Your task to perform on an android device: Open eBay Image 0: 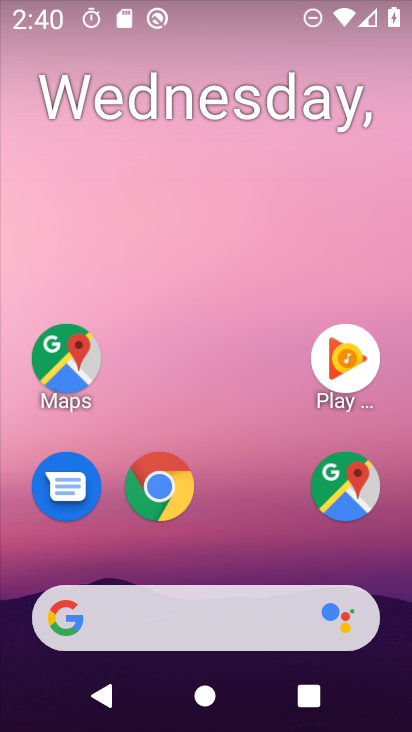
Step 0: press home button
Your task to perform on an android device: Open eBay Image 1: 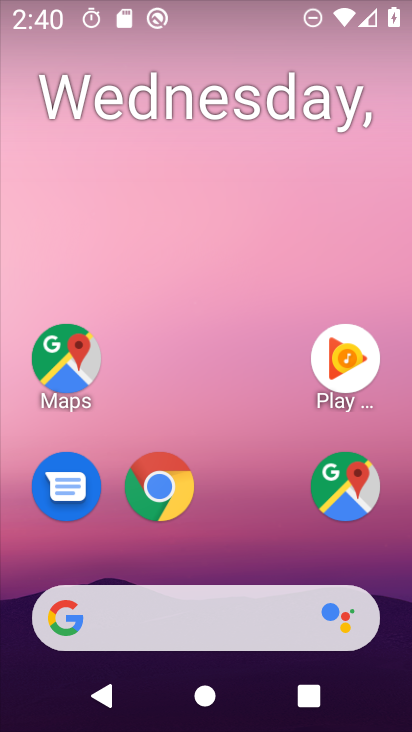
Step 1: drag from (266, 536) to (275, 151)
Your task to perform on an android device: Open eBay Image 2: 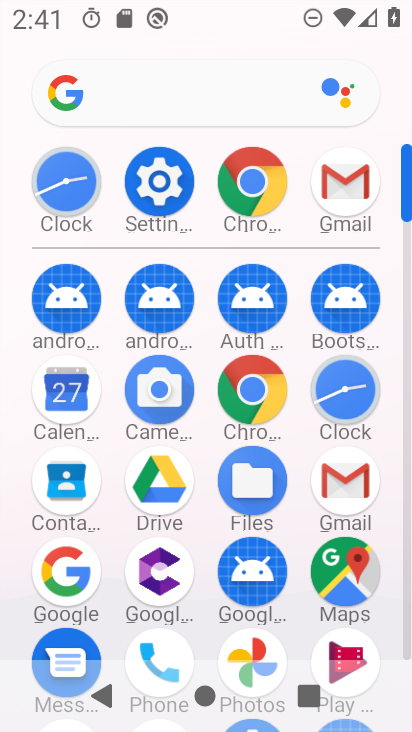
Step 2: click (259, 194)
Your task to perform on an android device: Open eBay Image 3: 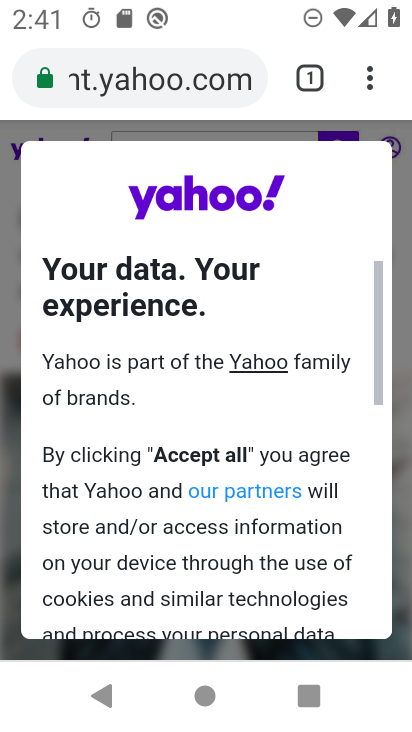
Step 3: click (209, 81)
Your task to perform on an android device: Open eBay Image 4: 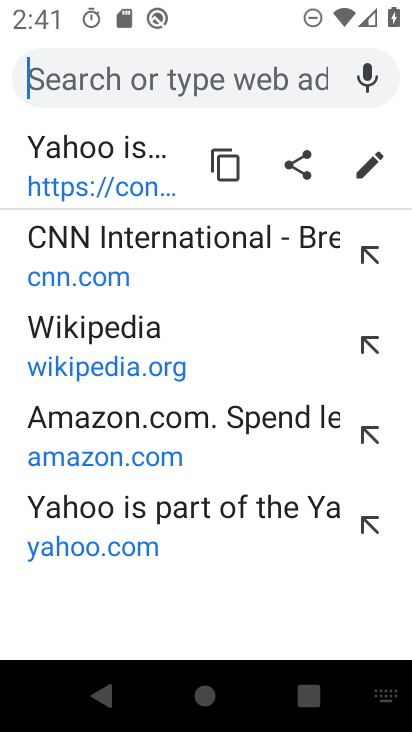
Step 4: type "ebay"
Your task to perform on an android device: Open eBay Image 5: 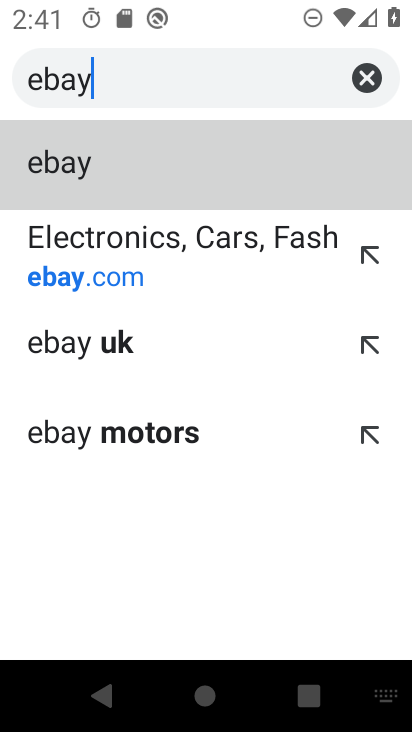
Step 5: click (369, 165)
Your task to perform on an android device: Open eBay Image 6: 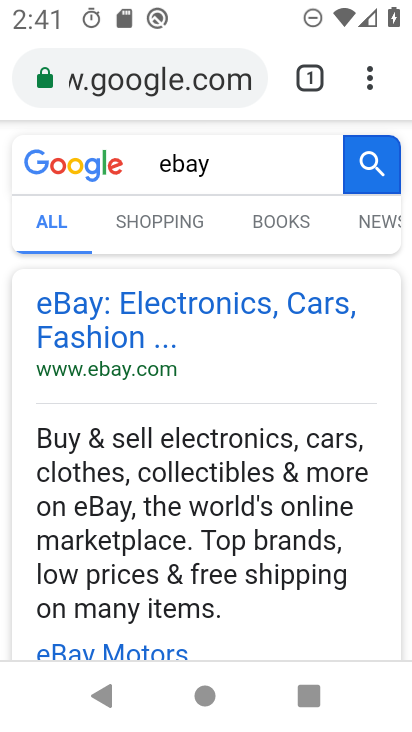
Step 6: task complete